Your task to perform on an android device: Open the calendar and show me this week's events? Image 0: 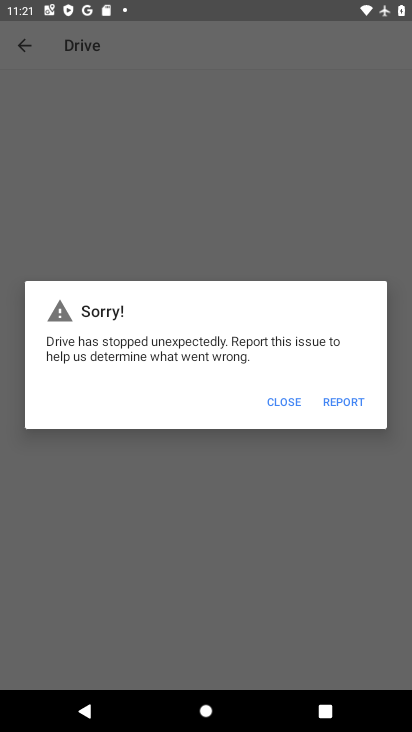
Step 0: press home button
Your task to perform on an android device: Open the calendar and show me this week's events? Image 1: 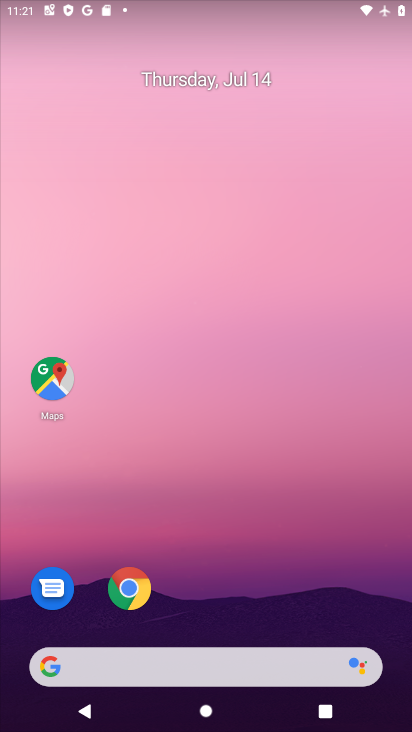
Step 1: drag from (176, 674) to (321, 193)
Your task to perform on an android device: Open the calendar and show me this week's events? Image 2: 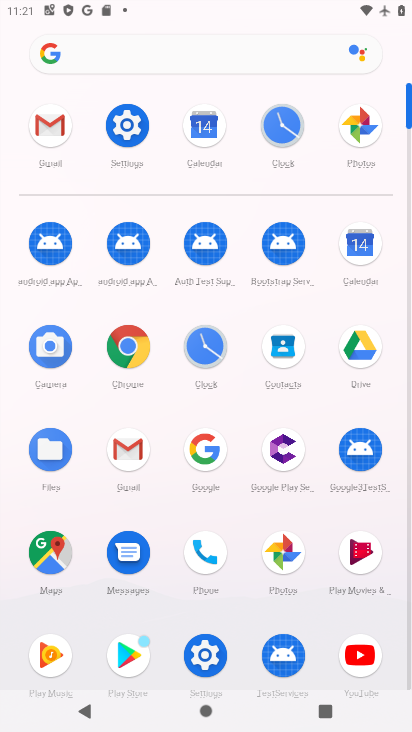
Step 2: click (200, 131)
Your task to perform on an android device: Open the calendar and show me this week's events? Image 3: 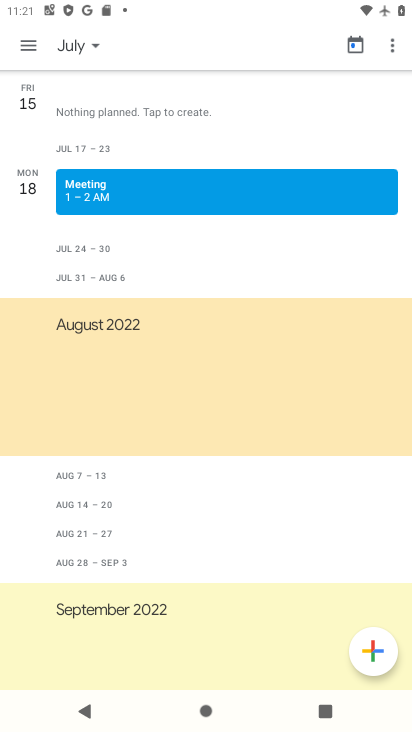
Step 3: click (82, 53)
Your task to perform on an android device: Open the calendar and show me this week's events? Image 4: 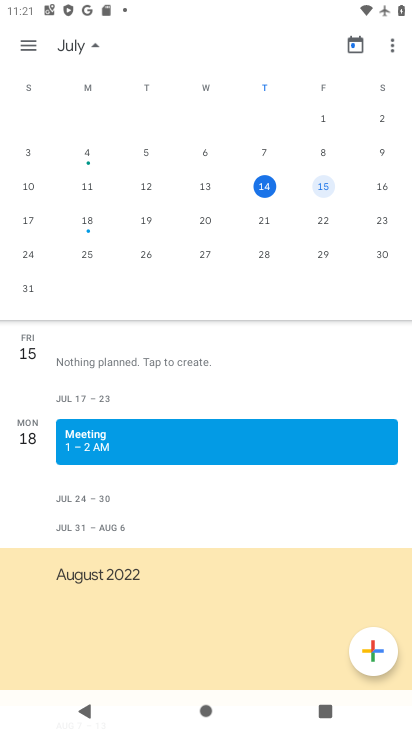
Step 4: click (266, 183)
Your task to perform on an android device: Open the calendar and show me this week's events? Image 5: 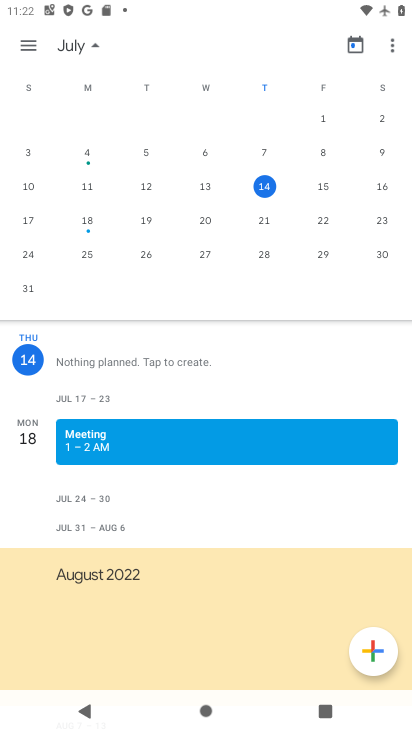
Step 5: click (31, 46)
Your task to perform on an android device: Open the calendar and show me this week's events? Image 6: 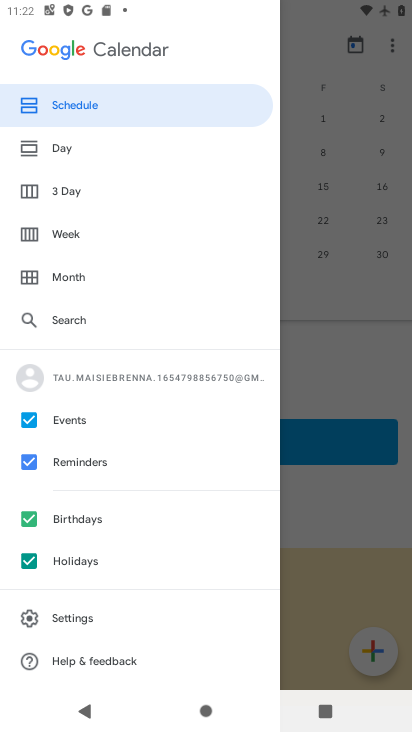
Step 6: click (75, 231)
Your task to perform on an android device: Open the calendar and show me this week's events? Image 7: 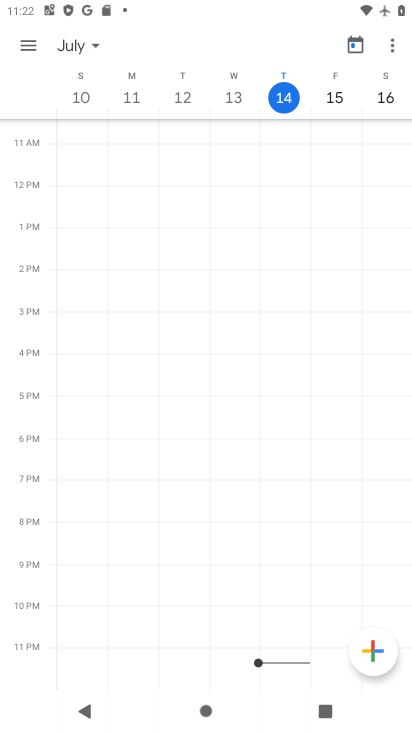
Step 7: click (30, 42)
Your task to perform on an android device: Open the calendar and show me this week's events? Image 8: 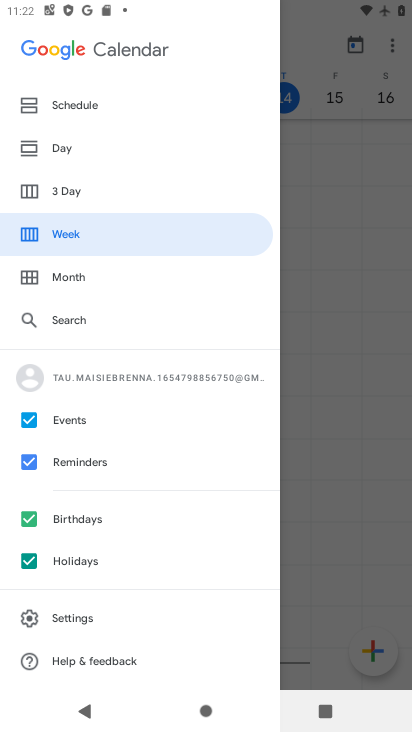
Step 8: click (63, 109)
Your task to perform on an android device: Open the calendar and show me this week's events? Image 9: 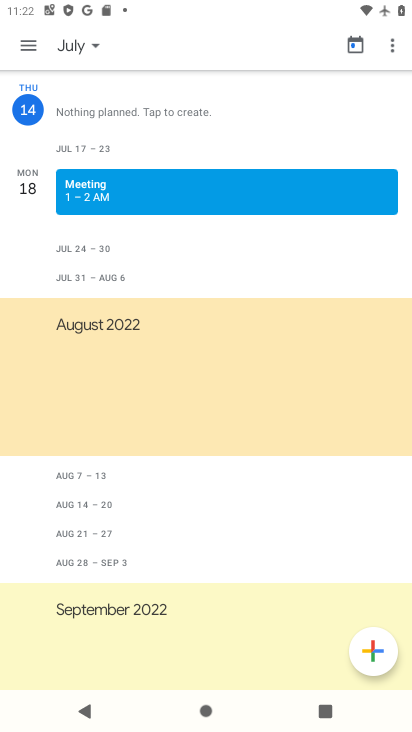
Step 9: task complete